Your task to perform on an android device: open device folders in google photos Image 0: 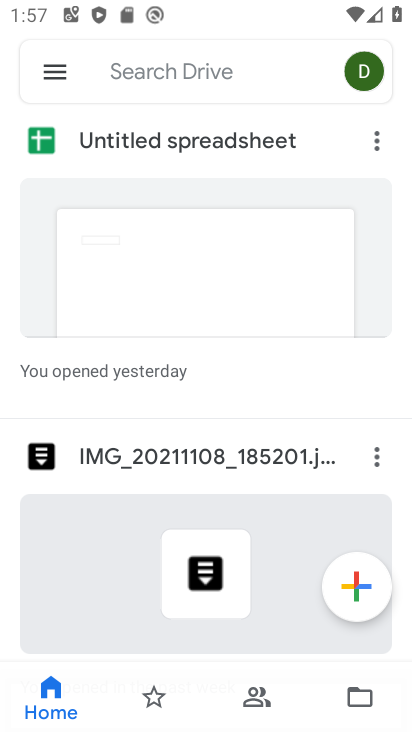
Step 0: press home button
Your task to perform on an android device: open device folders in google photos Image 1: 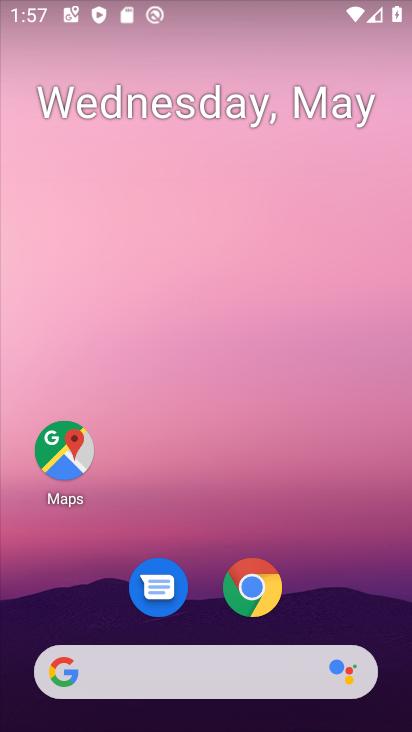
Step 1: drag from (344, 598) to (309, 39)
Your task to perform on an android device: open device folders in google photos Image 2: 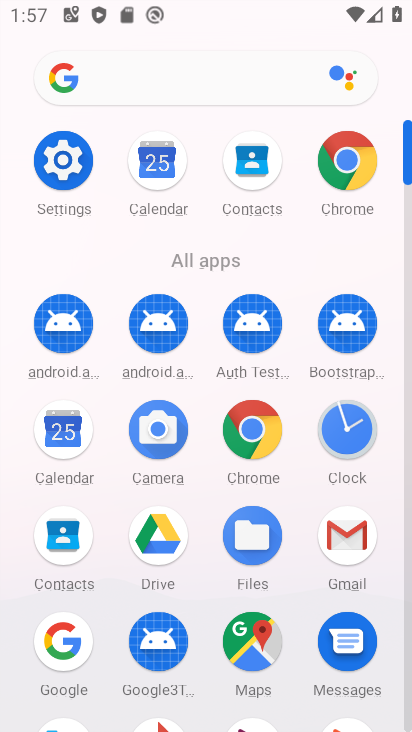
Step 2: drag from (294, 487) to (315, 215)
Your task to perform on an android device: open device folders in google photos Image 3: 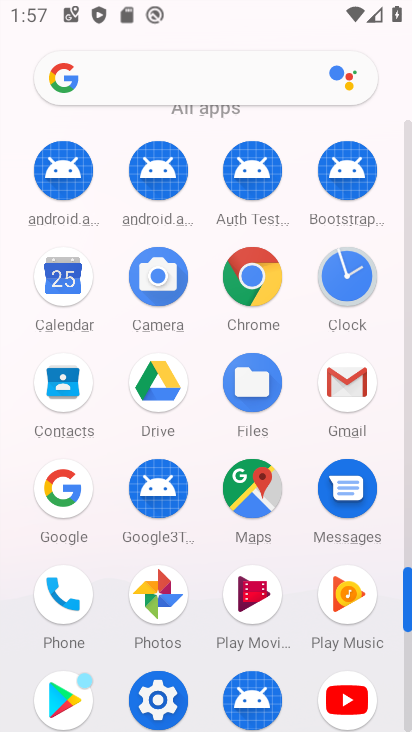
Step 3: click (160, 586)
Your task to perform on an android device: open device folders in google photos Image 4: 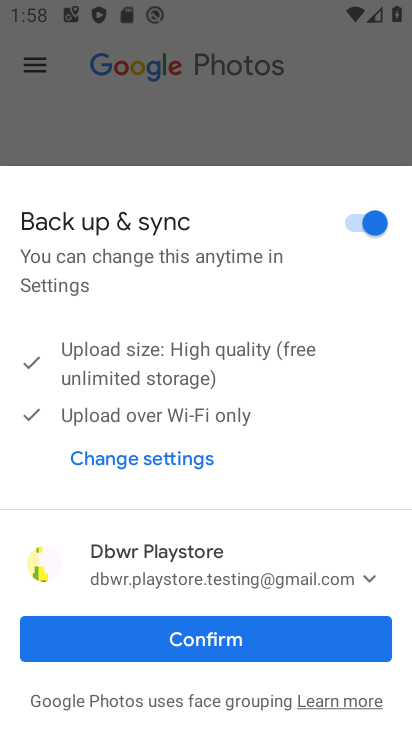
Step 4: click (296, 634)
Your task to perform on an android device: open device folders in google photos Image 5: 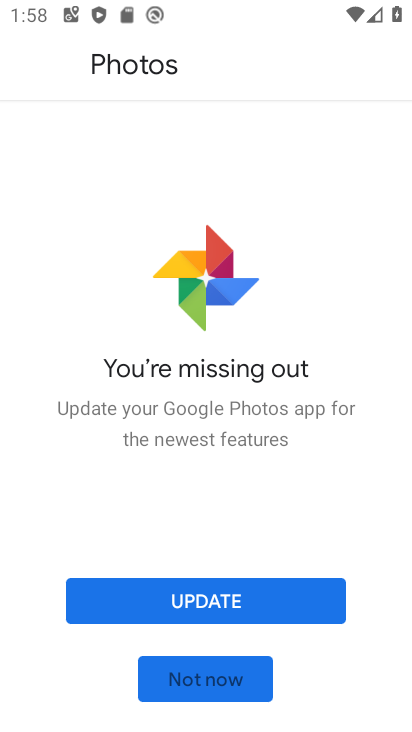
Step 5: click (223, 679)
Your task to perform on an android device: open device folders in google photos Image 6: 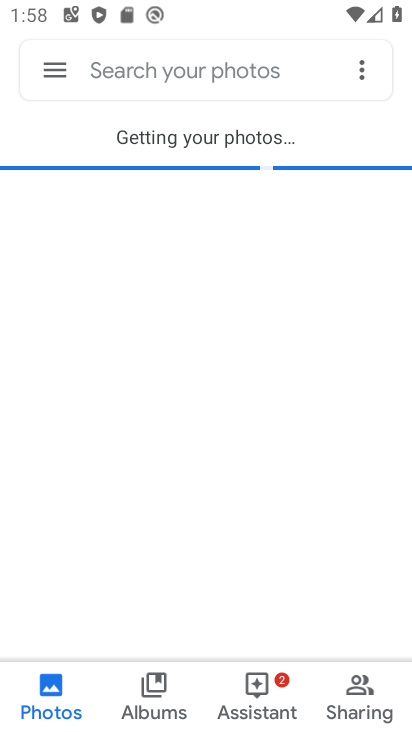
Step 6: click (61, 77)
Your task to perform on an android device: open device folders in google photos Image 7: 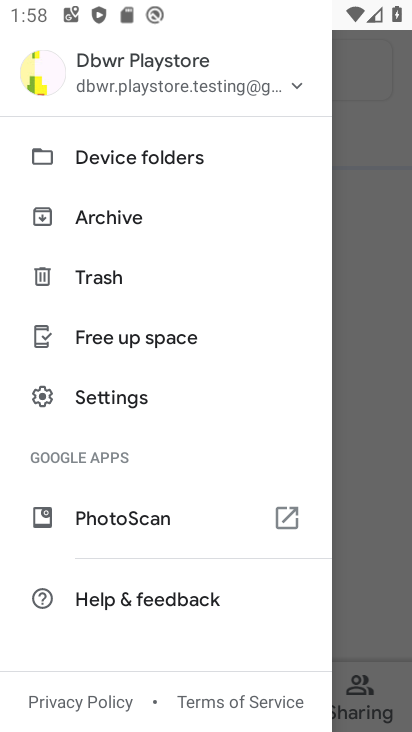
Step 7: click (178, 157)
Your task to perform on an android device: open device folders in google photos Image 8: 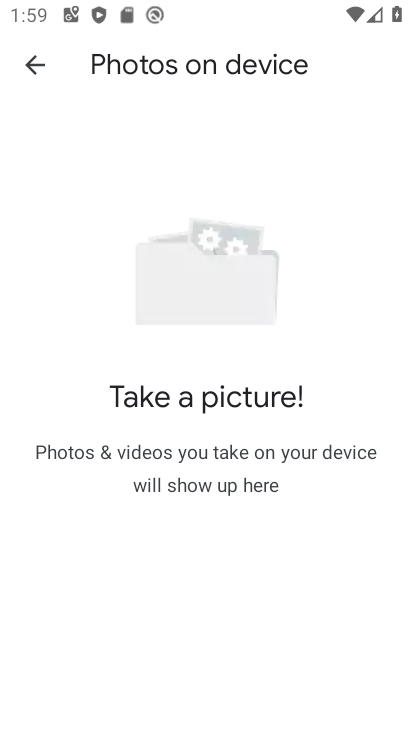
Step 8: task complete